Your task to perform on an android device: turn off airplane mode Image 0: 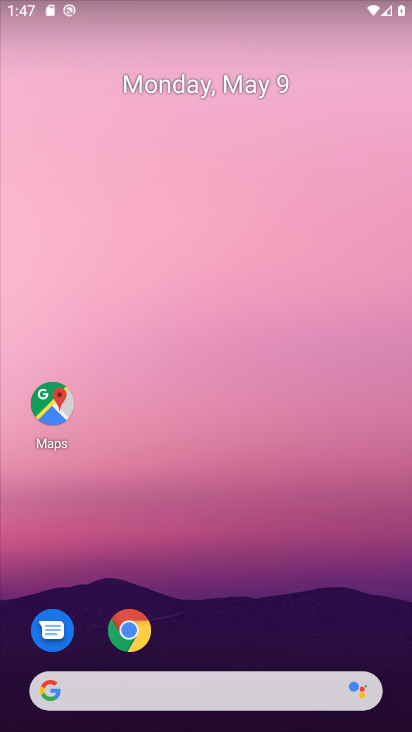
Step 0: drag from (246, 633) to (316, 200)
Your task to perform on an android device: turn off airplane mode Image 1: 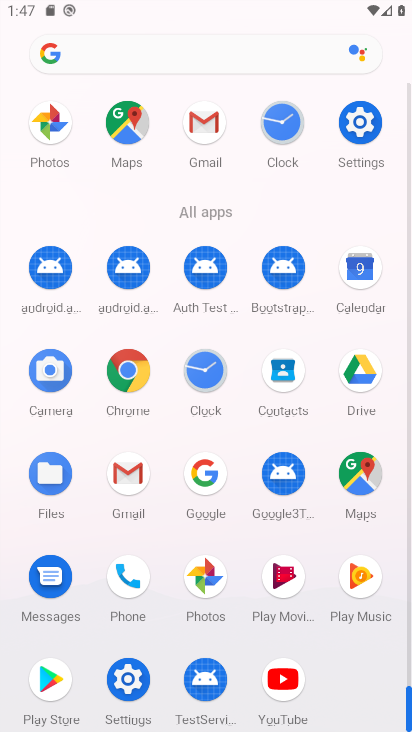
Step 1: click (368, 143)
Your task to perform on an android device: turn off airplane mode Image 2: 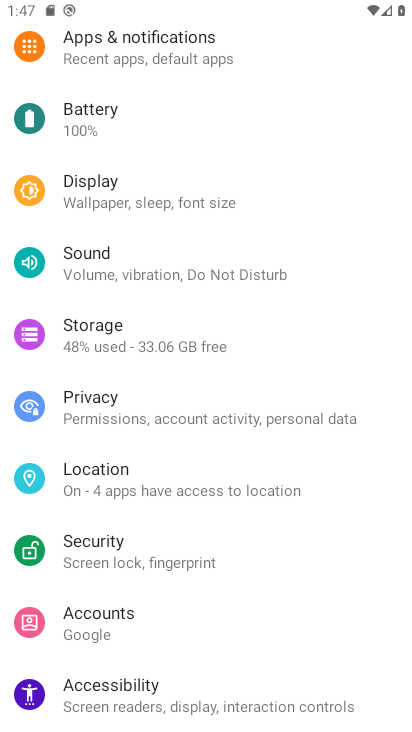
Step 2: drag from (154, 175) to (169, 673)
Your task to perform on an android device: turn off airplane mode Image 3: 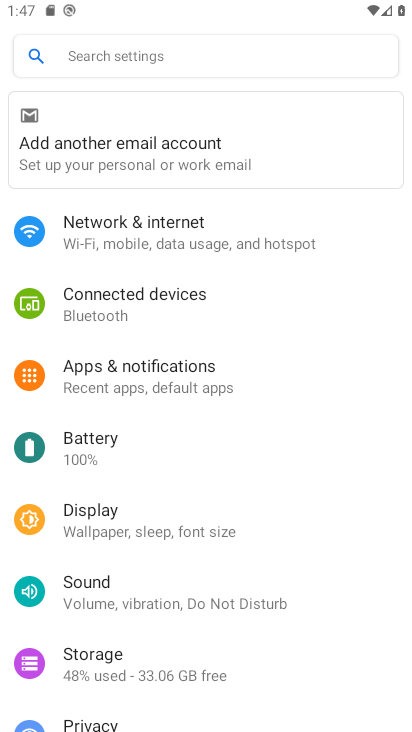
Step 3: click (178, 252)
Your task to perform on an android device: turn off airplane mode Image 4: 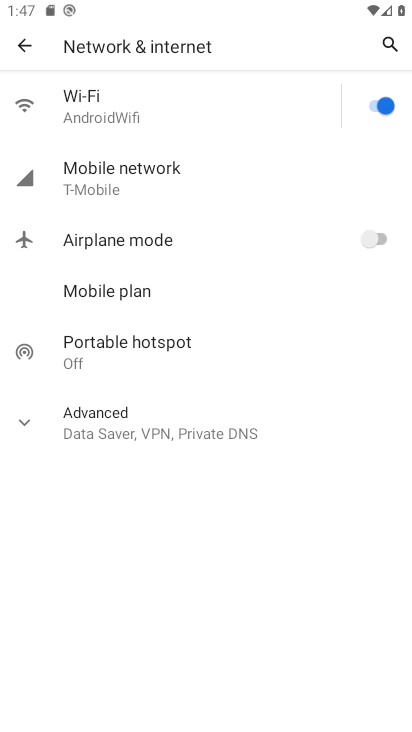
Step 4: task complete